Your task to perform on an android device: Open Reddit.com Image 0: 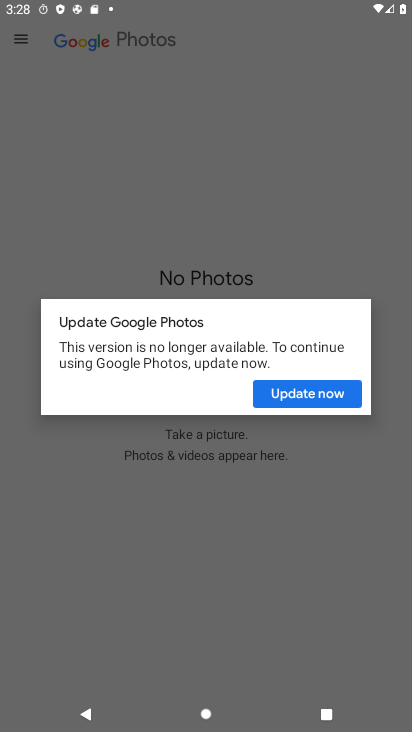
Step 0: press home button
Your task to perform on an android device: Open Reddit.com Image 1: 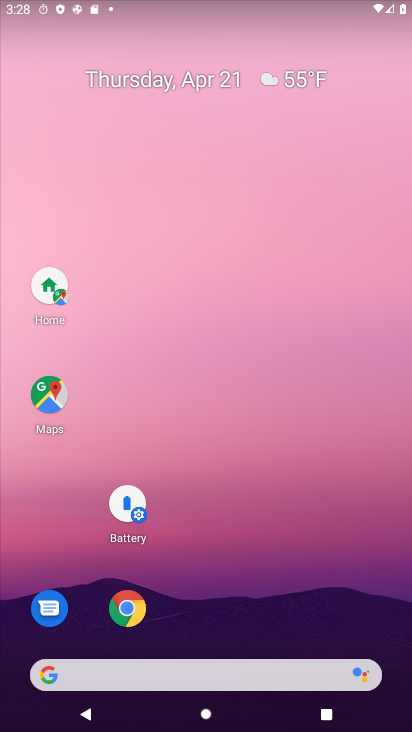
Step 1: drag from (266, 539) to (276, 36)
Your task to perform on an android device: Open Reddit.com Image 2: 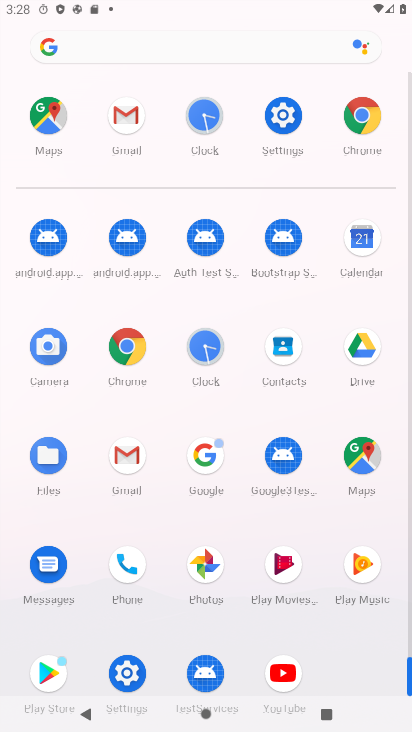
Step 2: click (338, 105)
Your task to perform on an android device: Open Reddit.com Image 3: 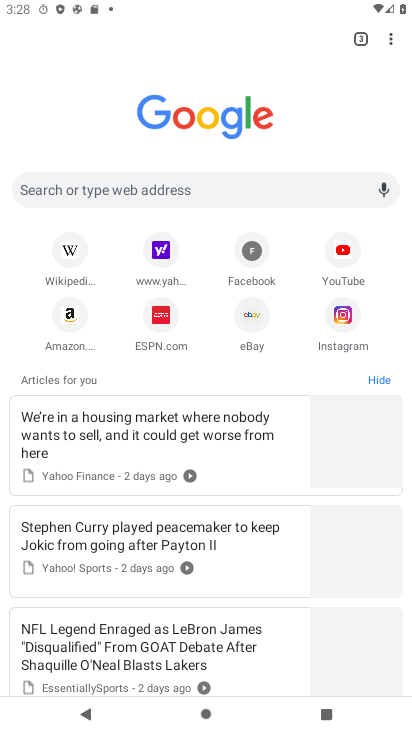
Step 3: click (251, 188)
Your task to perform on an android device: Open Reddit.com Image 4: 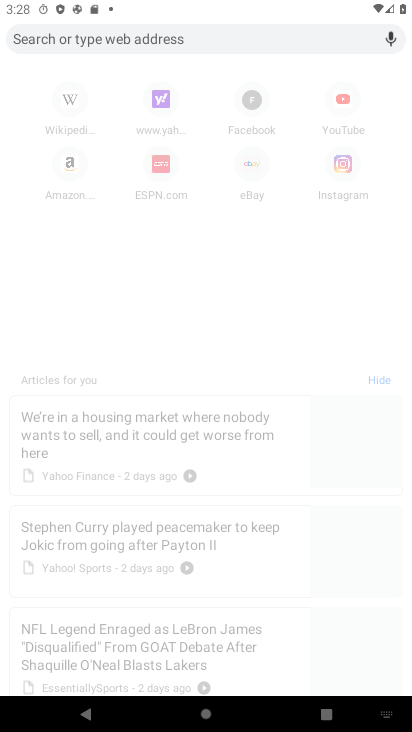
Step 4: type "reddit.com"
Your task to perform on an android device: Open Reddit.com Image 5: 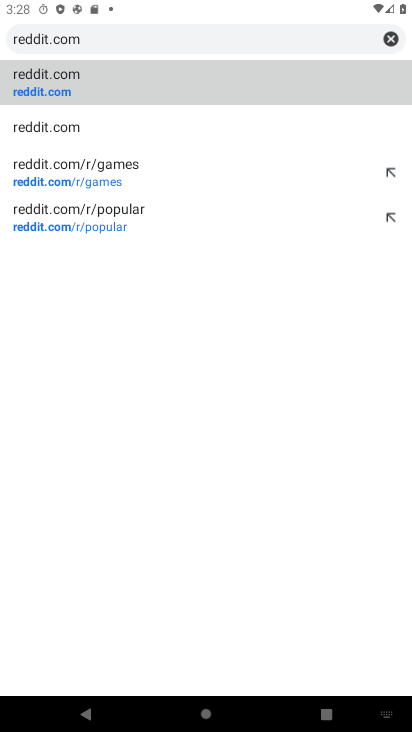
Step 5: click (62, 89)
Your task to perform on an android device: Open Reddit.com Image 6: 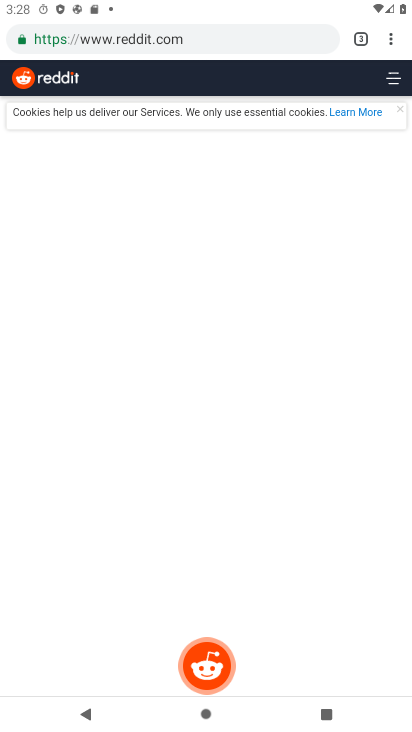
Step 6: task complete